Your task to perform on an android device: What's the weather? Image 0: 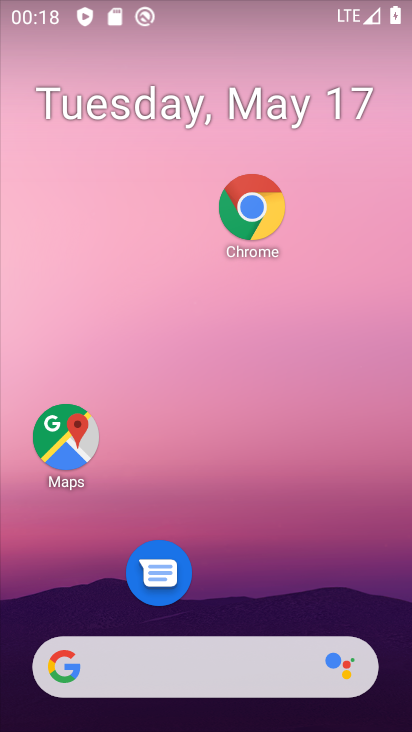
Step 0: drag from (317, 669) to (381, 47)
Your task to perform on an android device: What's the weather? Image 1: 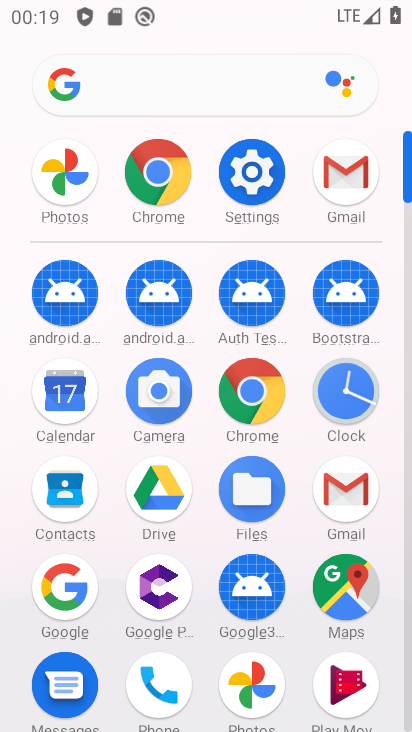
Step 1: click (255, 390)
Your task to perform on an android device: What's the weather? Image 2: 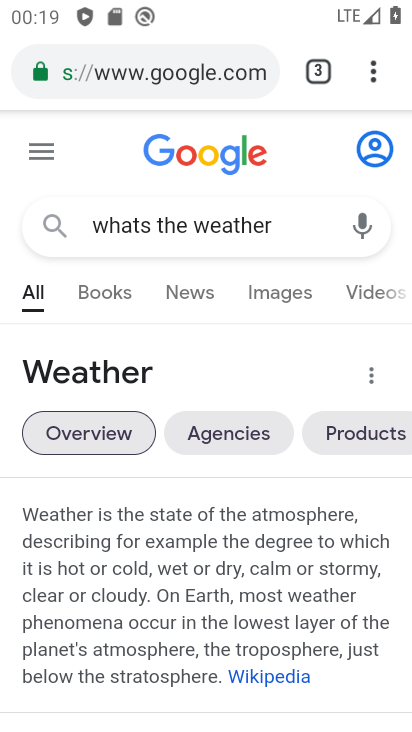
Step 2: task complete